Your task to perform on an android device: open wifi settings Image 0: 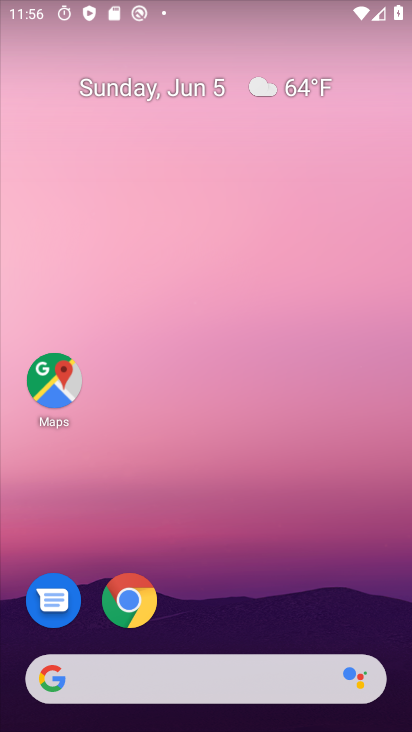
Step 0: drag from (244, 621) to (300, 222)
Your task to perform on an android device: open wifi settings Image 1: 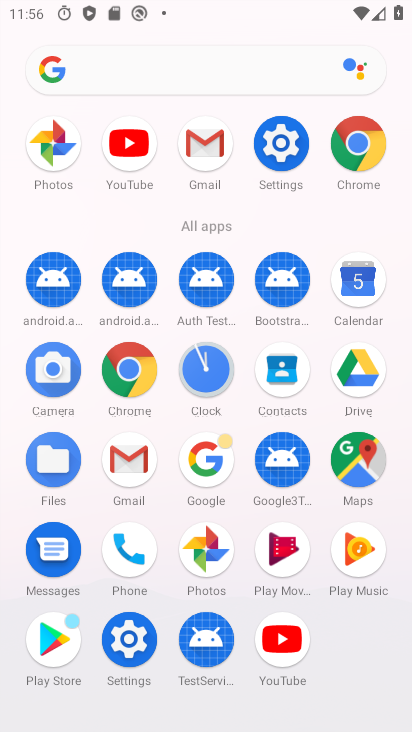
Step 1: click (269, 134)
Your task to perform on an android device: open wifi settings Image 2: 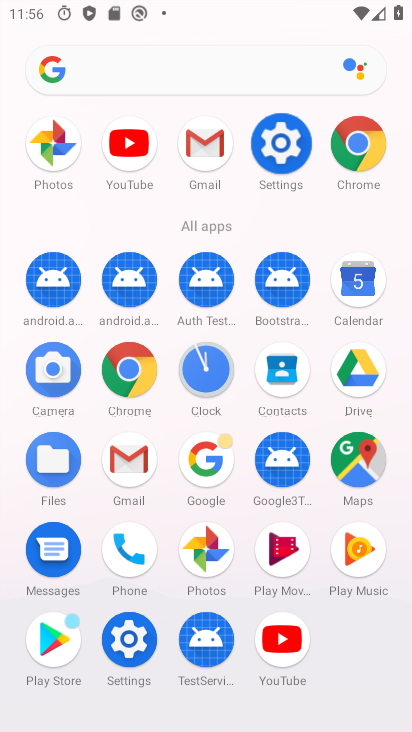
Step 2: click (269, 134)
Your task to perform on an android device: open wifi settings Image 3: 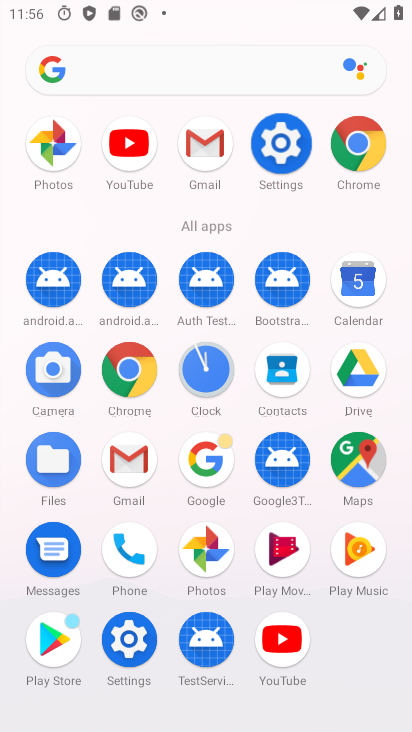
Step 3: click (268, 131)
Your task to perform on an android device: open wifi settings Image 4: 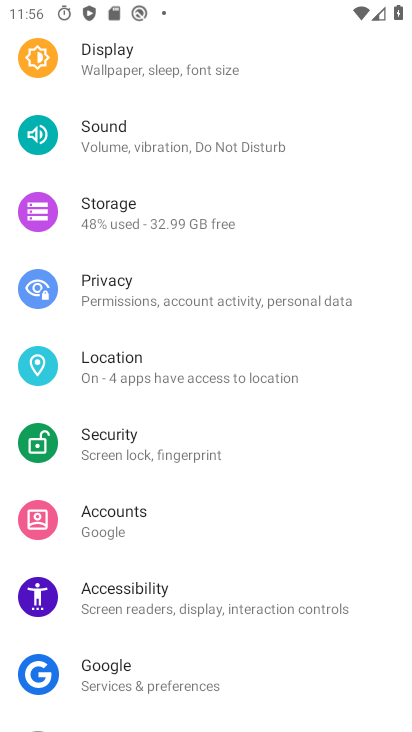
Step 4: drag from (125, 27) to (174, 379)
Your task to perform on an android device: open wifi settings Image 5: 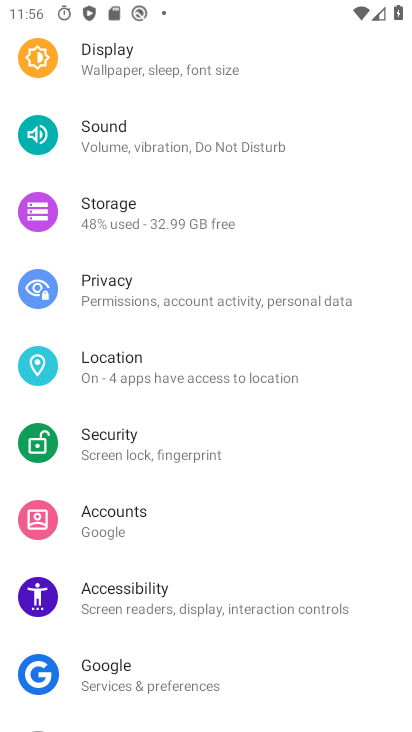
Step 5: drag from (137, 176) to (179, 510)
Your task to perform on an android device: open wifi settings Image 6: 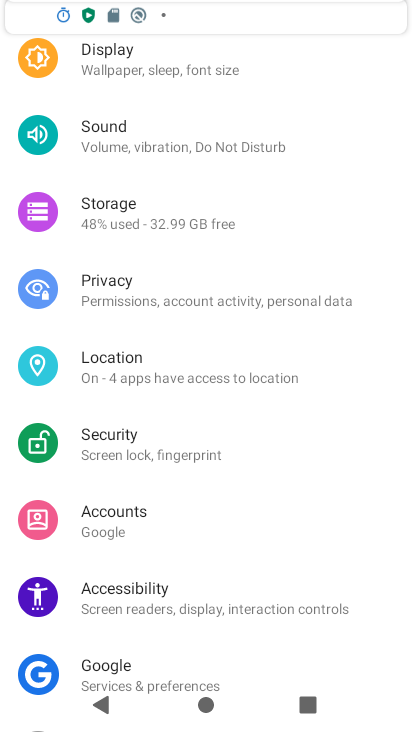
Step 6: drag from (130, 235) to (141, 537)
Your task to perform on an android device: open wifi settings Image 7: 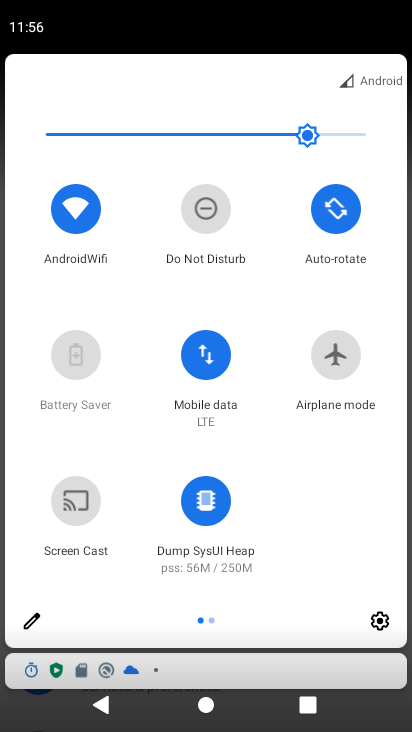
Step 7: drag from (128, 326) to (133, 504)
Your task to perform on an android device: open wifi settings Image 8: 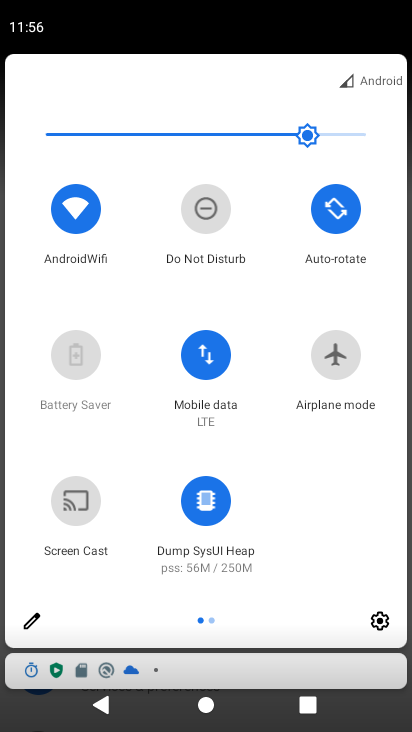
Step 8: press back button
Your task to perform on an android device: open wifi settings Image 9: 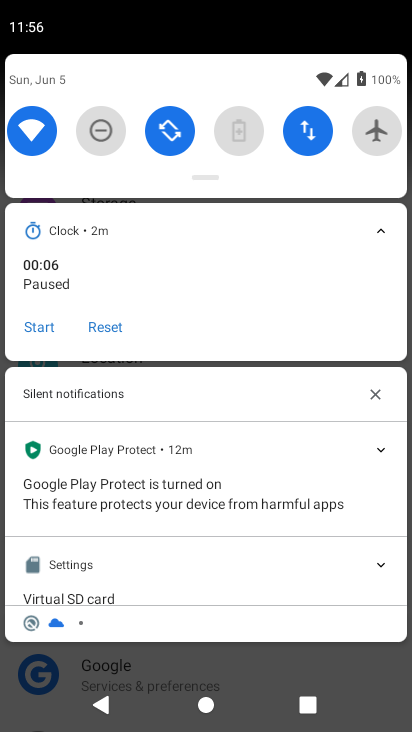
Step 9: click (267, 649)
Your task to perform on an android device: open wifi settings Image 10: 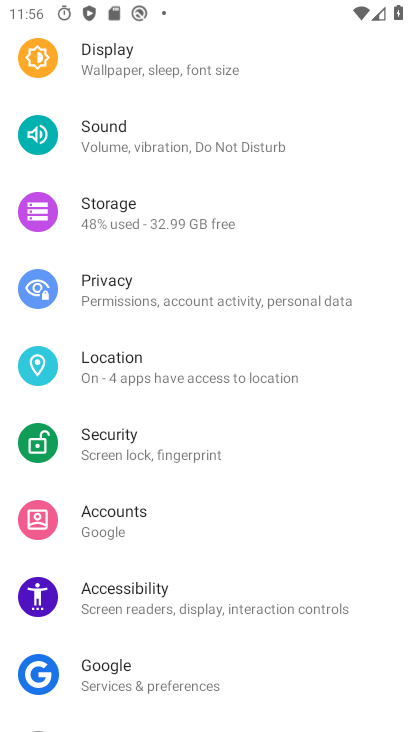
Step 10: drag from (143, 120) to (199, 581)
Your task to perform on an android device: open wifi settings Image 11: 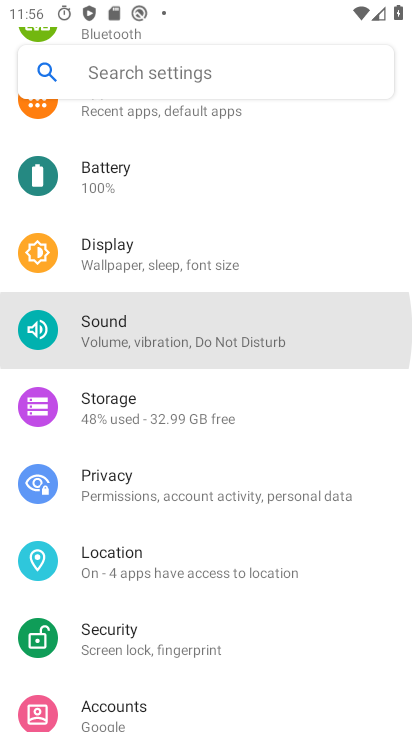
Step 11: drag from (156, 178) to (155, 586)
Your task to perform on an android device: open wifi settings Image 12: 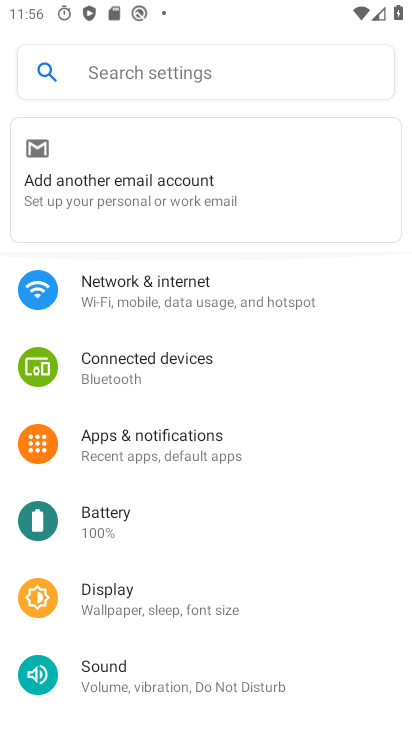
Step 12: drag from (108, 150) to (164, 541)
Your task to perform on an android device: open wifi settings Image 13: 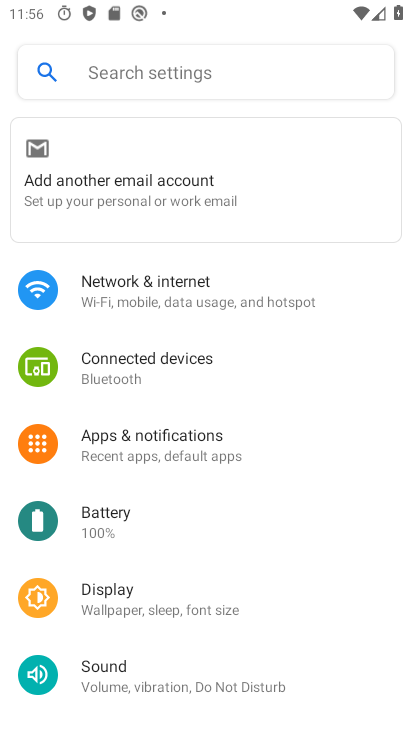
Step 13: click (125, 273)
Your task to perform on an android device: open wifi settings Image 14: 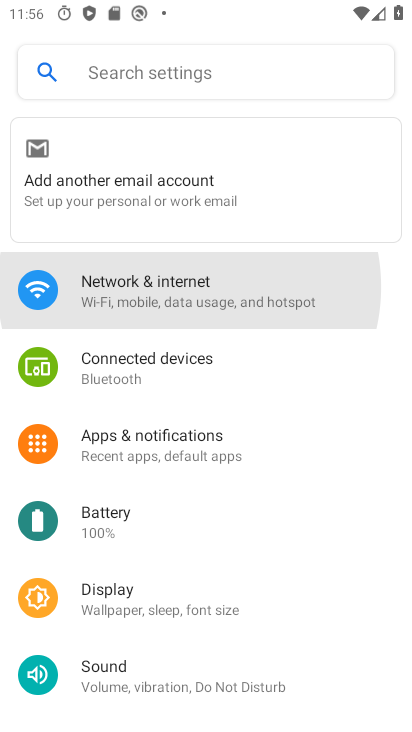
Step 14: click (126, 280)
Your task to perform on an android device: open wifi settings Image 15: 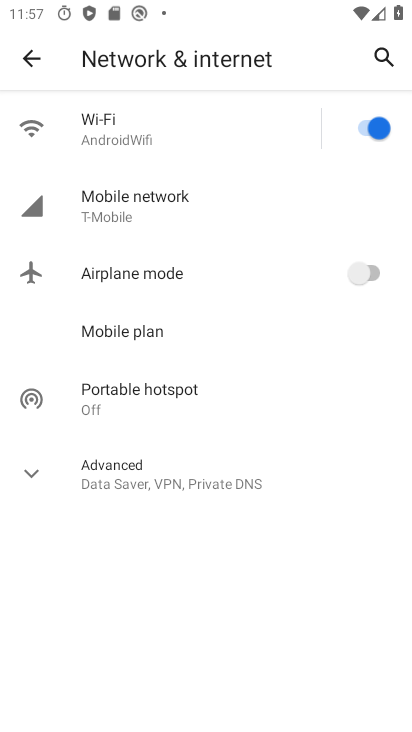
Step 15: task complete